Your task to perform on an android device: Open Google Chrome and open the bookmarks view Image 0: 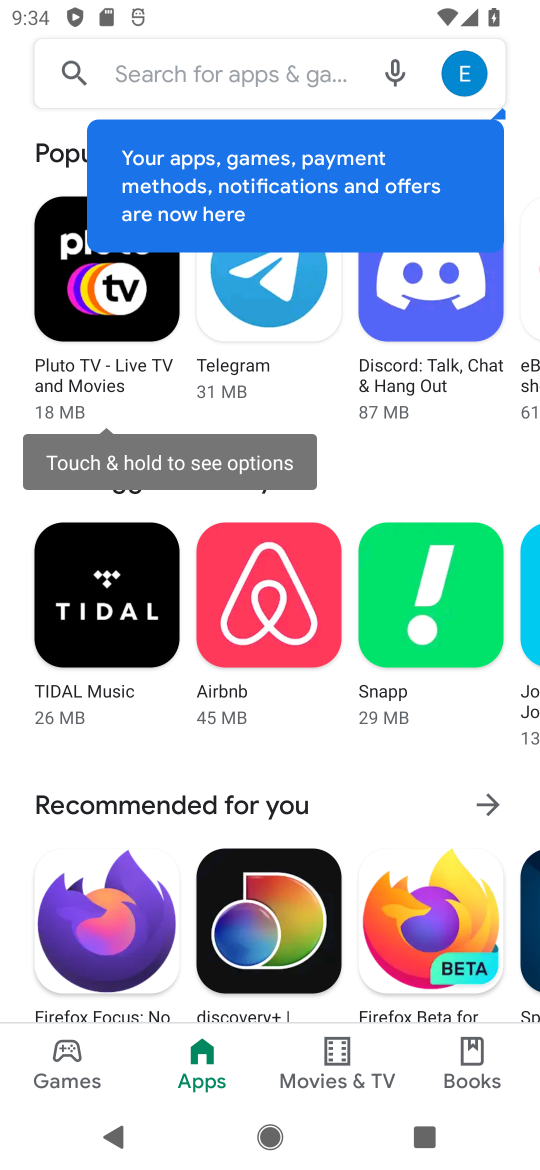
Step 0: press home button
Your task to perform on an android device: Open Google Chrome and open the bookmarks view Image 1: 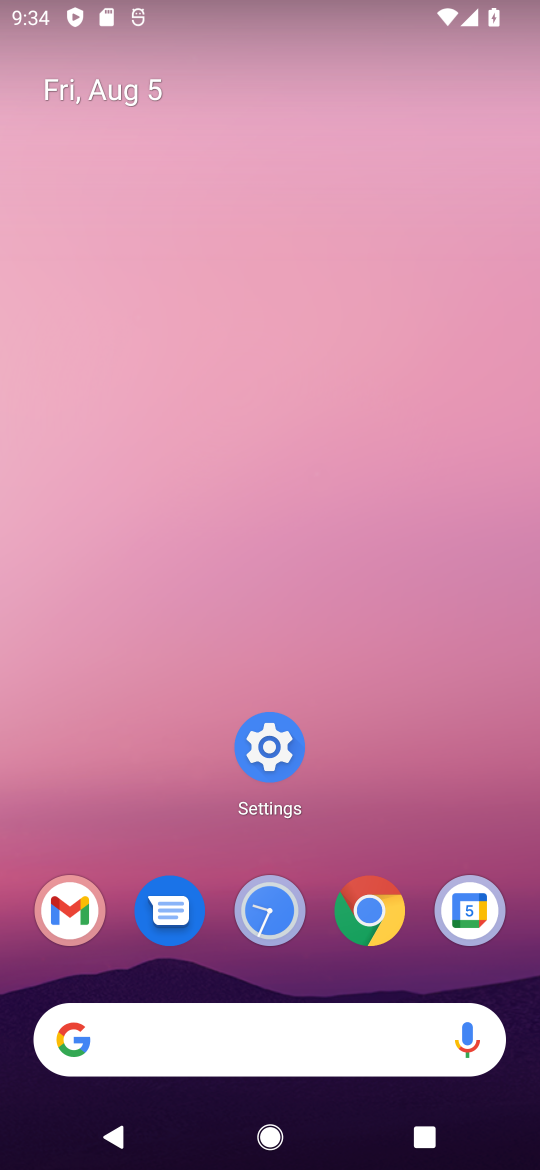
Step 1: click (380, 915)
Your task to perform on an android device: Open Google Chrome and open the bookmarks view Image 2: 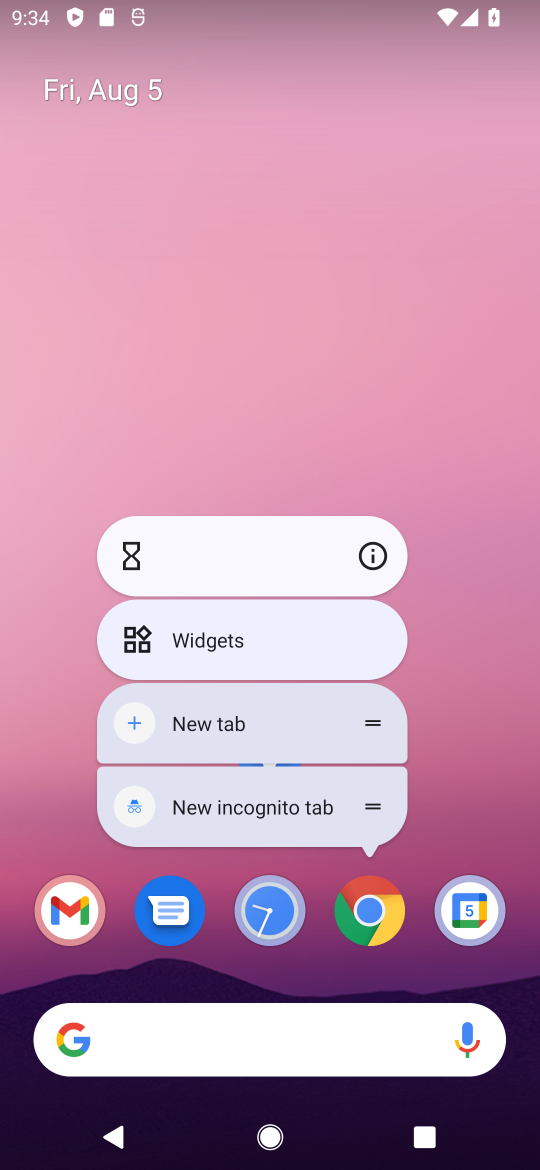
Step 2: click (380, 915)
Your task to perform on an android device: Open Google Chrome and open the bookmarks view Image 3: 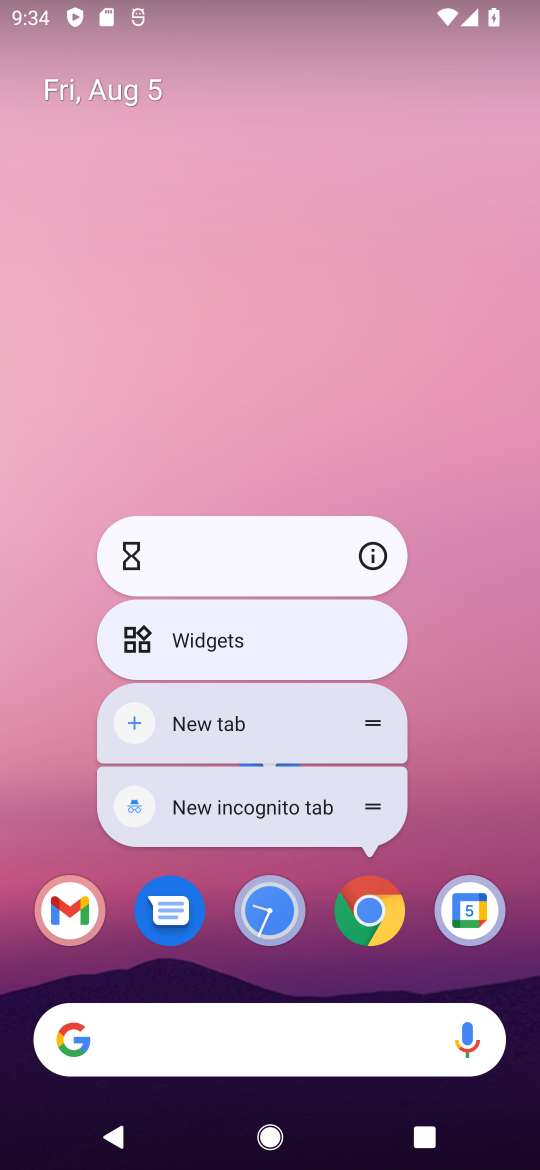
Step 3: click (371, 921)
Your task to perform on an android device: Open Google Chrome and open the bookmarks view Image 4: 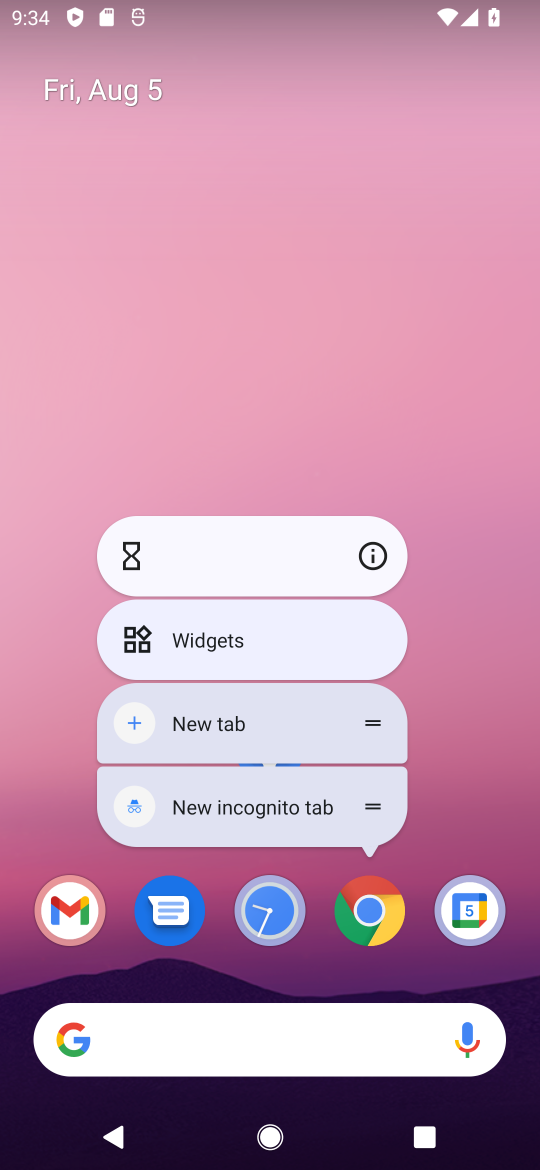
Step 4: click (371, 921)
Your task to perform on an android device: Open Google Chrome and open the bookmarks view Image 5: 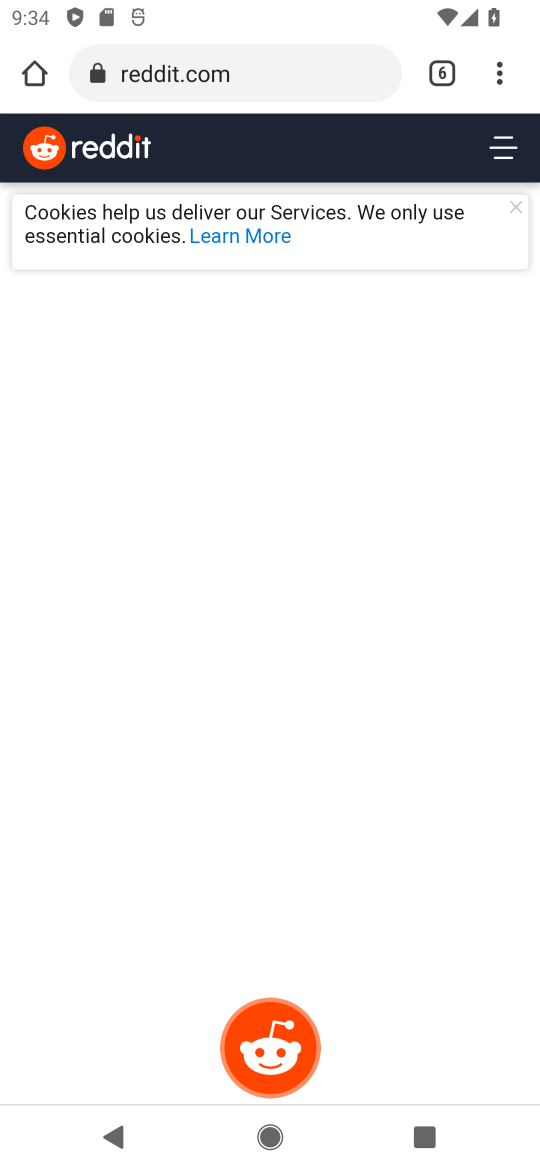
Step 5: task complete